Your task to perform on an android device: turn off location history Image 0: 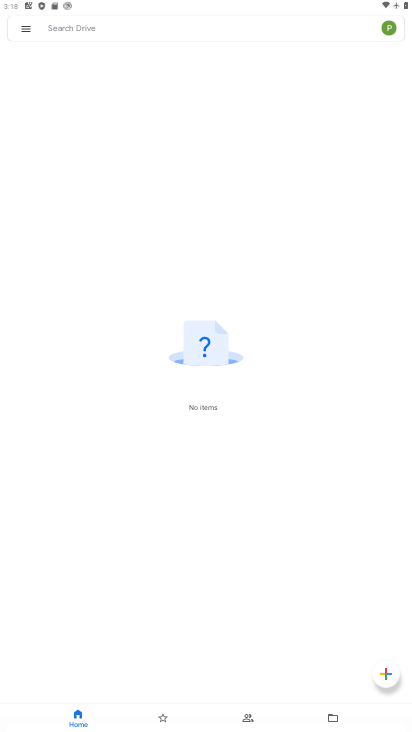
Step 0: press home button
Your task to perform on an android device: turn off location history Image 1: 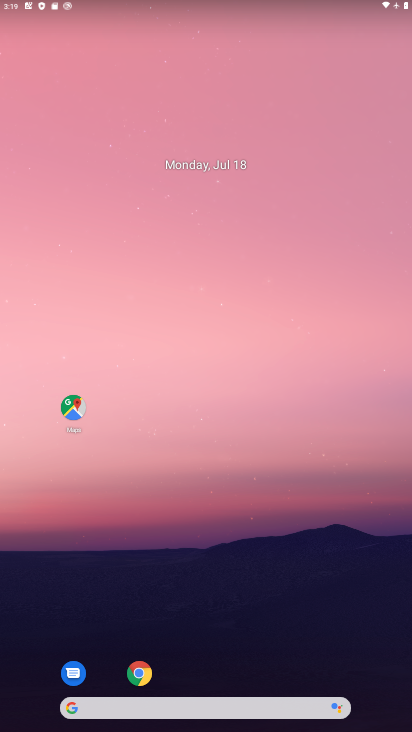
Step 1: drag from (153, 657) to (206, 212)
Your task to perform on an android device: turn off location history Image 2: 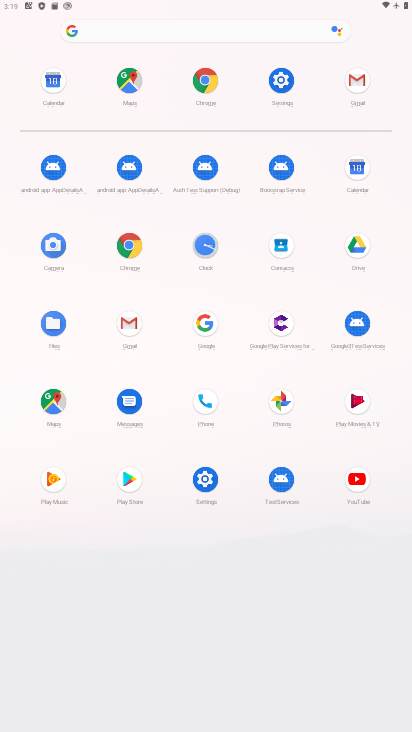
Step 2: click (270, 73)
Your task to perform on an android device: turn off location history Image 3: 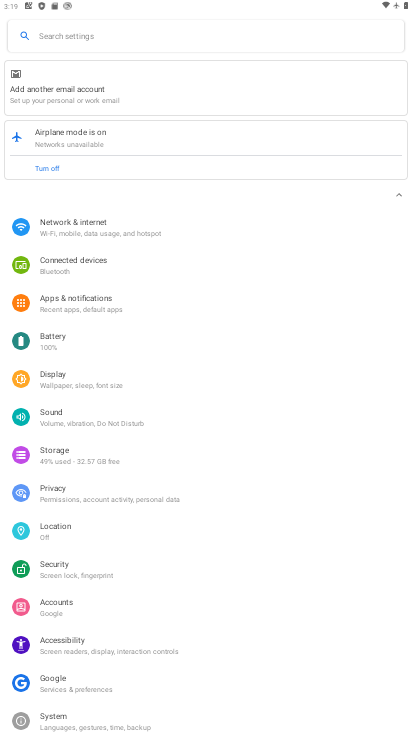
Step 3: click (83, 531)
Your task to perform on an android device: turn off location history Image 4: 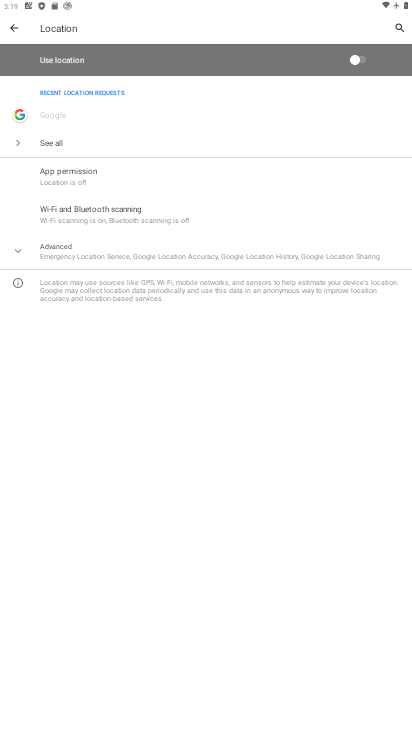
Step 4: click (169, 242)
Your task to perform on an android device: turn off location history Image 5: 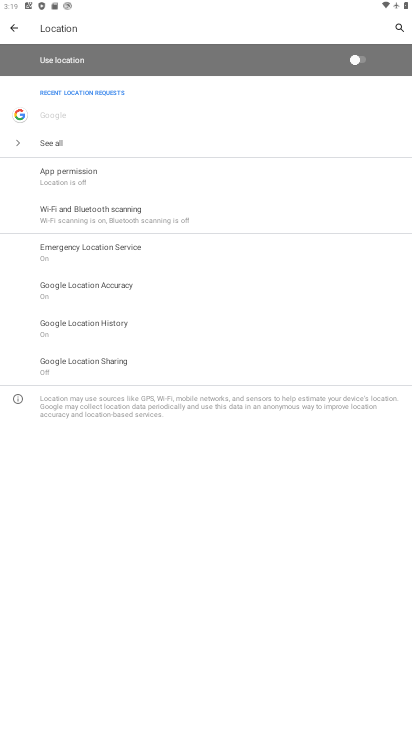
Step 5: click (131, 334)
Your task to perform on an android device: turn off location history Image 6: 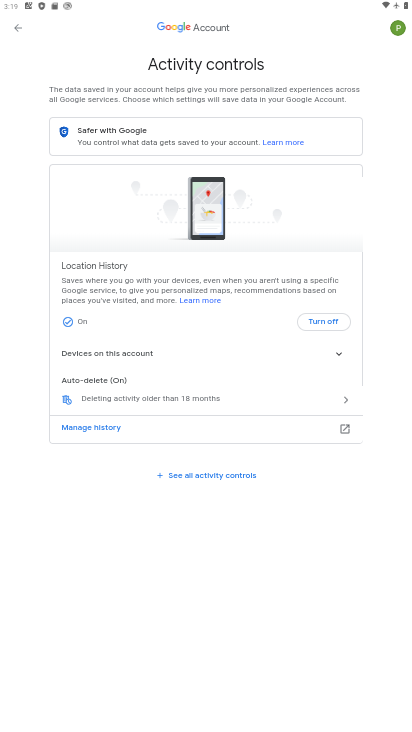
Step 6: click (305, 325)
Your task to perform on an android device: turn off location history Image 7: 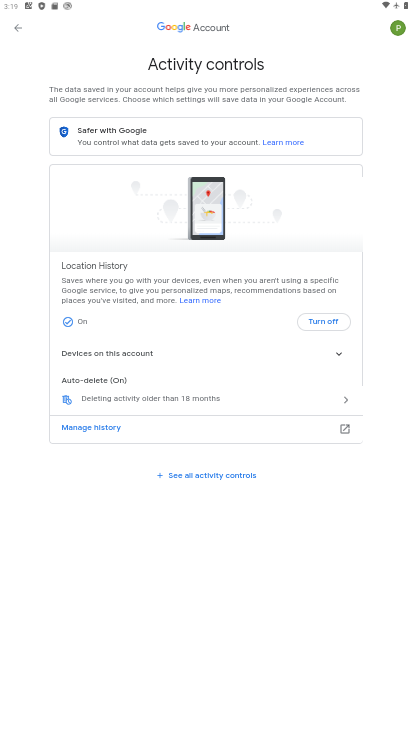
Step 7: click (305, 325)
Your task to perform on an android device: turn off location history Image 8: 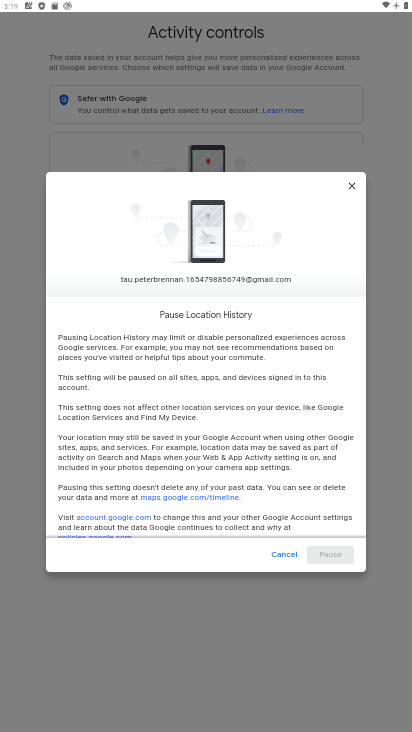
Step 8: task complete